Your task to perform on an android device: Open internet settings Image 0: 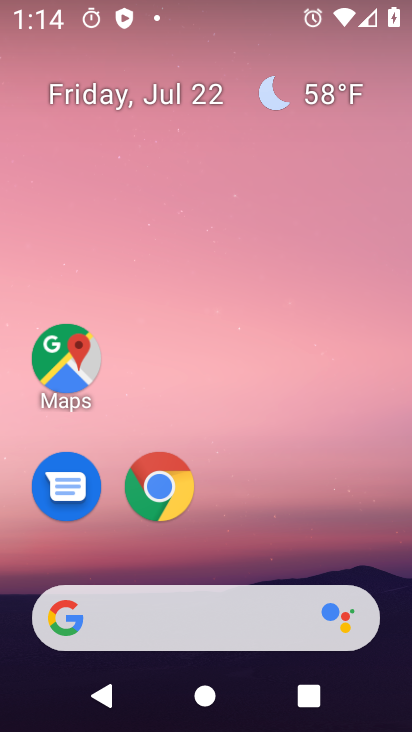
Step 0: drag from (351, 553) to (360, 149)
Your task to perform on an android device: Open internet settings Image 1: 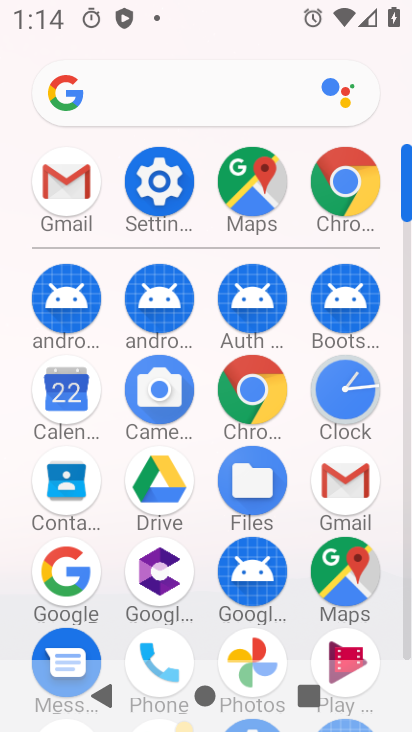
Step 1: click (150, 199)
Your task to perform on an android device: Open internet settings Image 2: 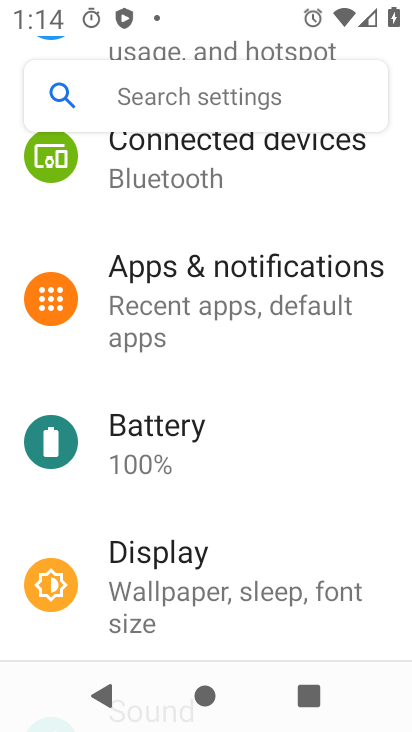
Step 2: drag from (367, 450) to (367, 388)
Your task to perform on an android device: Open internet settings Image 3: 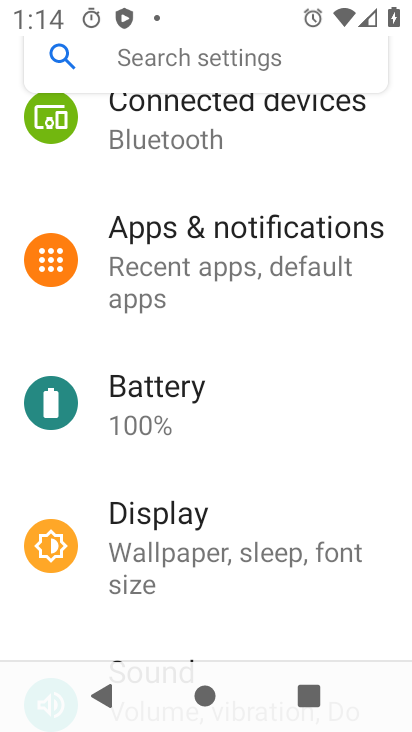
Step 3: drag from (365, 470) to (358, 380)
Your task to perform on an android device: Open internet settings Image 4: 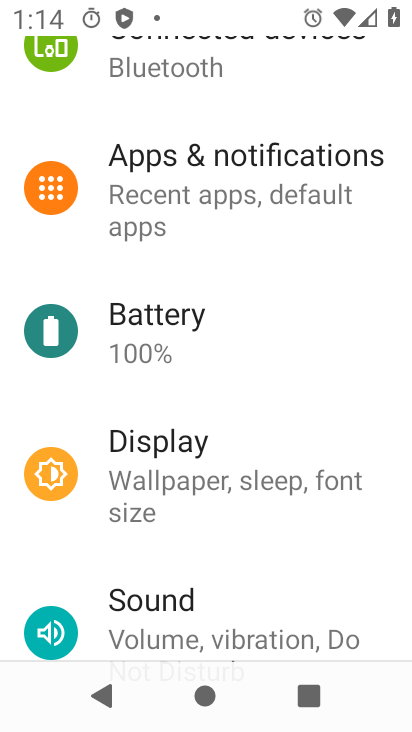
Step 4: drag from (356, 520) to (355, 396)
Your task to perform on an android device: Open internet settings Image 5: 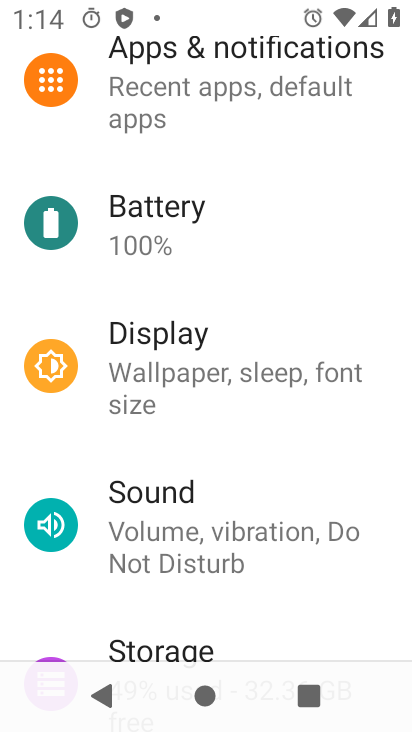
Step 5: drag from (356, 462) to (357, 368)
Your task to perform on an android device: Open internet settings Image 6: 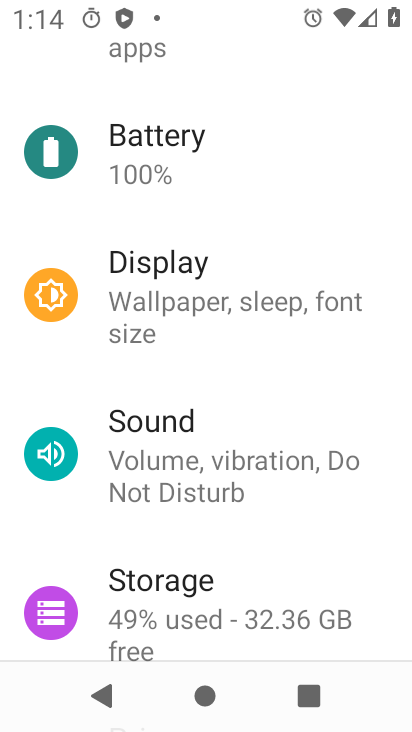
Step 6: drag from (356, 530) to (358, 417)
Your task to perform on an android device: Open internet settings Image 7: 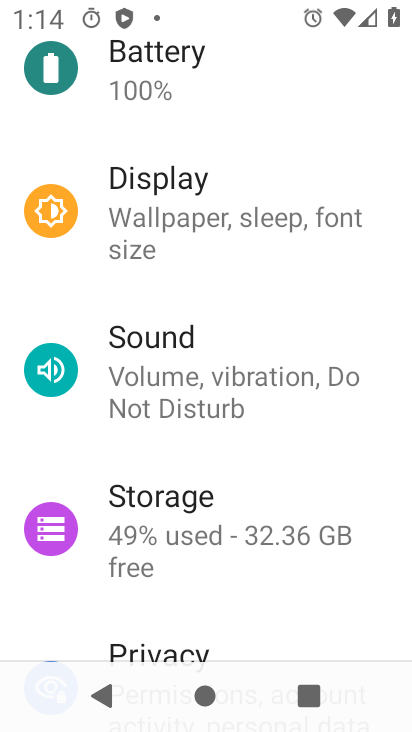
Step 7: drag from (360, 582) to (367, 453)
Your task to perform on an android device: Open internet settings Image 8: 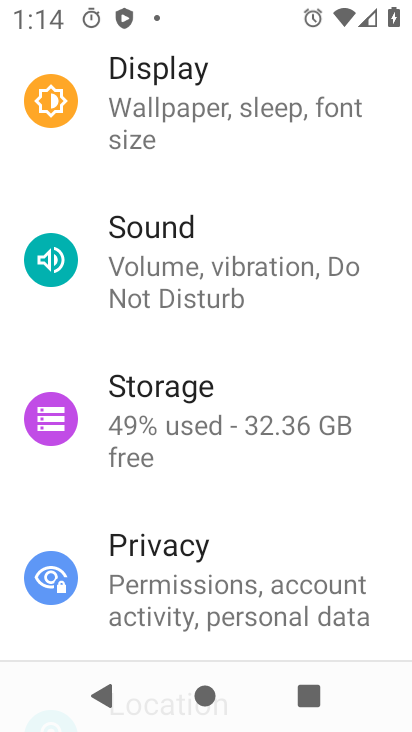
Step 8: drag from (372, 585) to (385, 445)
Your task to perform on an android device: Open internet settings Image 9: 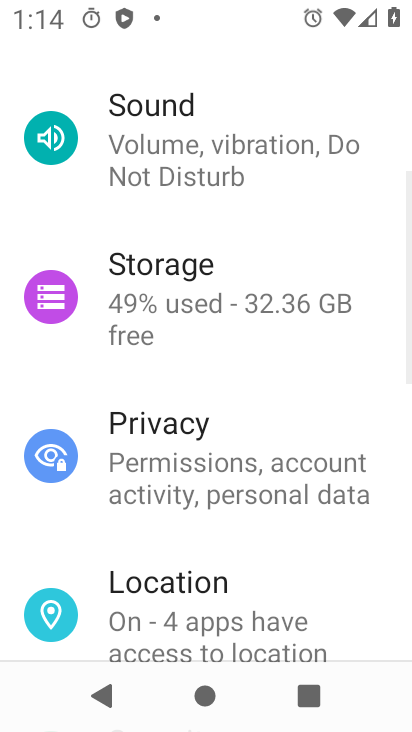
Step 9: drag from (369, 355) to (367, 482)
Your task to perform on an android device: Open internet settings Image 10: 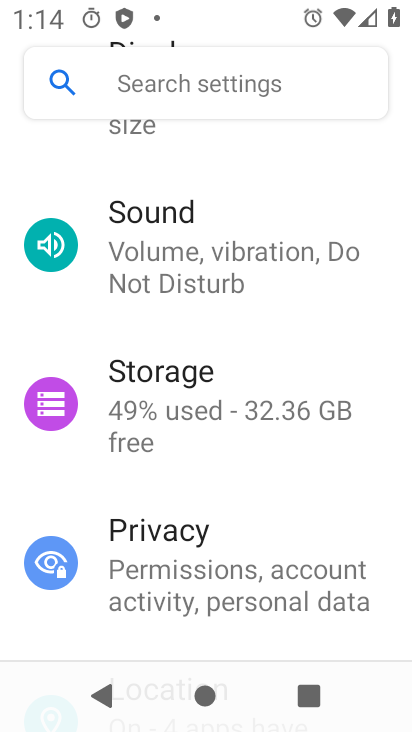
Step 10: drag from (376, 313) to (369, 413)
Your task to perform on an android device: Open internet settings Image 11: 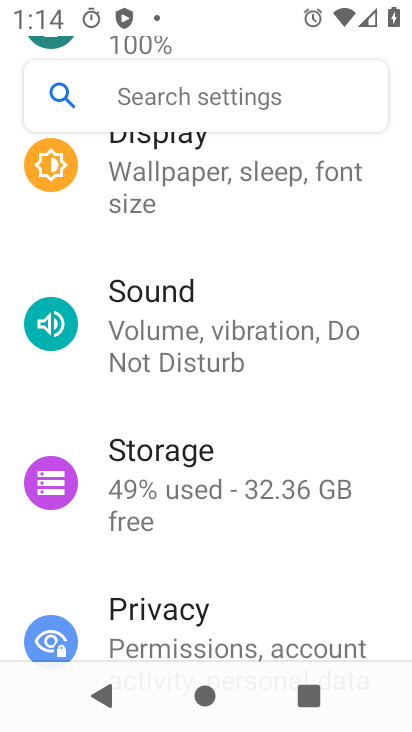
Step 11: drag from (378, 254) to (368, 384)
Your task to perform on an android device: Open internet settings Image 12: 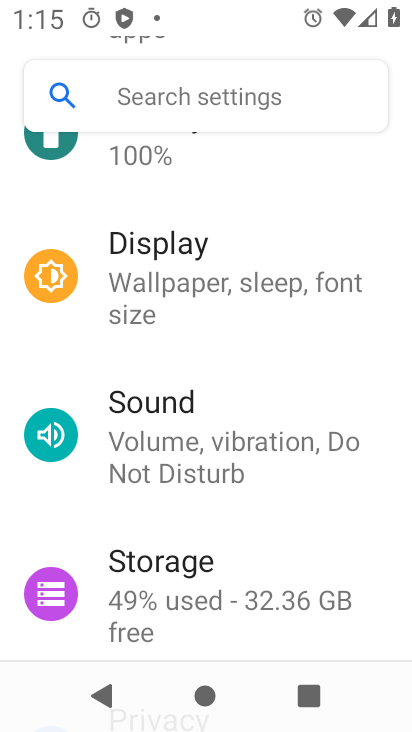
Step 12: drag from (362, 217) to (368, 368)
Your task to perform on an android device: Open internet settings Image 13: 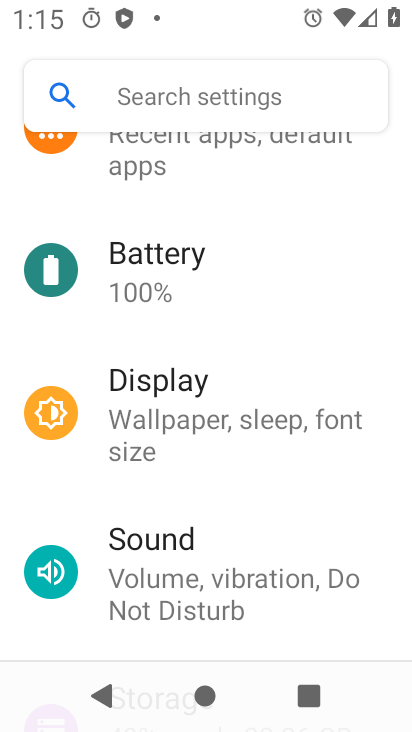
Step 13: drag from (363, 195) to (363, 318)
Your task to perform on an android device: Open internet settings Image 14: 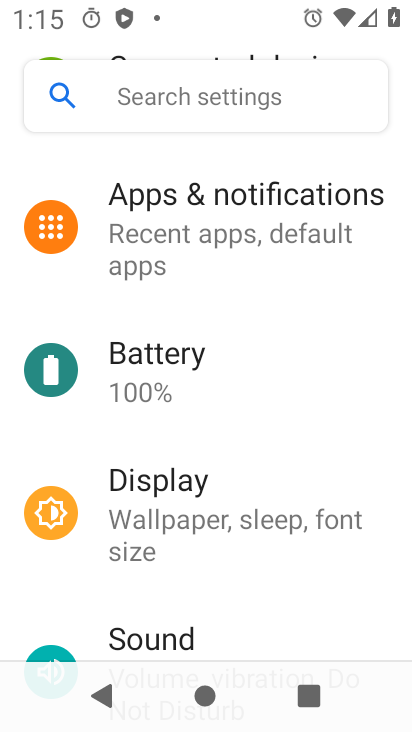
Step 14: drag from (373, 150) to (375, 322)
Your task to perform on an android device: Open internet settings Image 15: 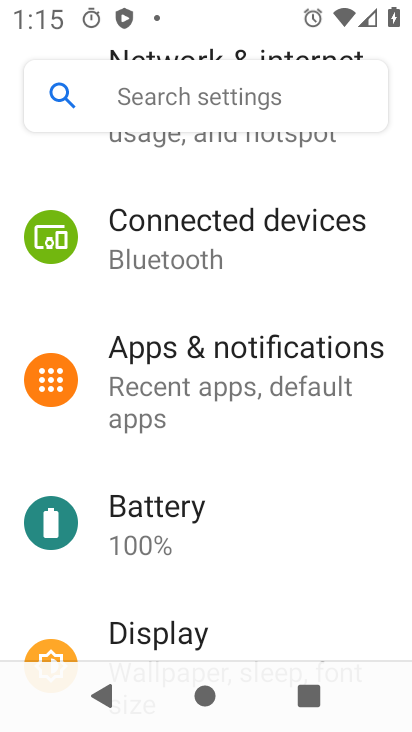
Step 15: drag from (380, 154) to (377, 321)
Your task to perform on an android device: Open internet settings Image 16: 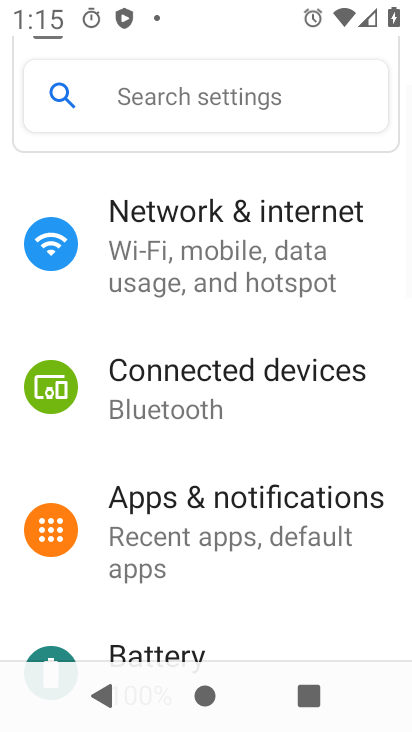
Step 16: click (321, 259)
Your task to perform on an android device: Open internet settings Image 17: 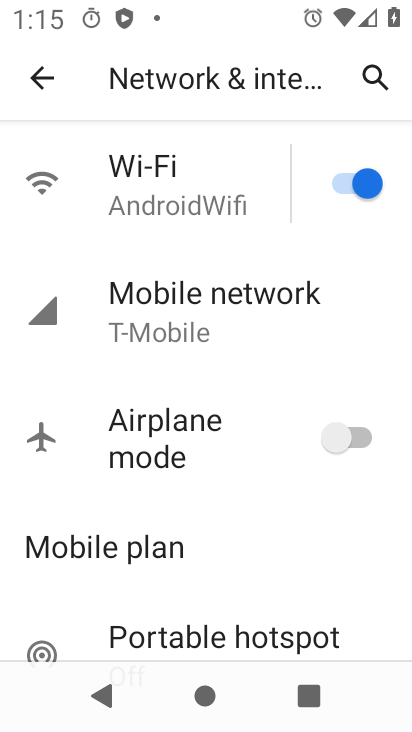
Step 17: task complete